Your task to perform on an android device: empty trash in google photos Image 0: 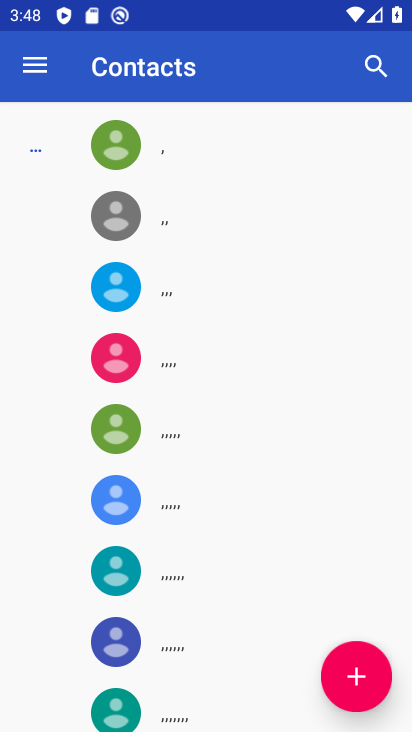
Step 0: press home button
Your task to perform on an android device: empty trash in google photos Image 1: 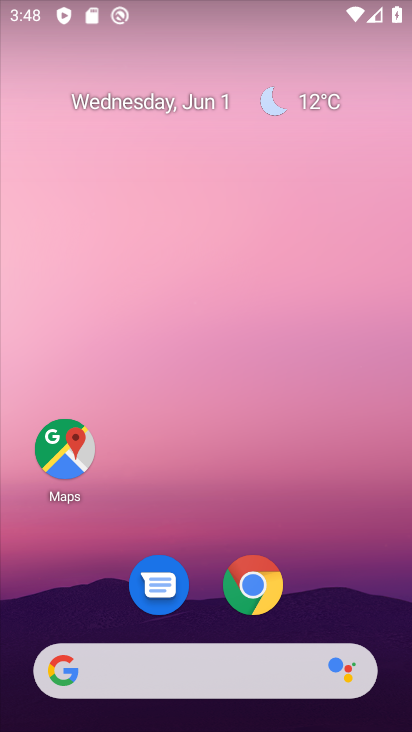
Step 1: drag from (352, 400) to (323, 121)
Your task to perform on an android device: empty trash in google photos Image 2: 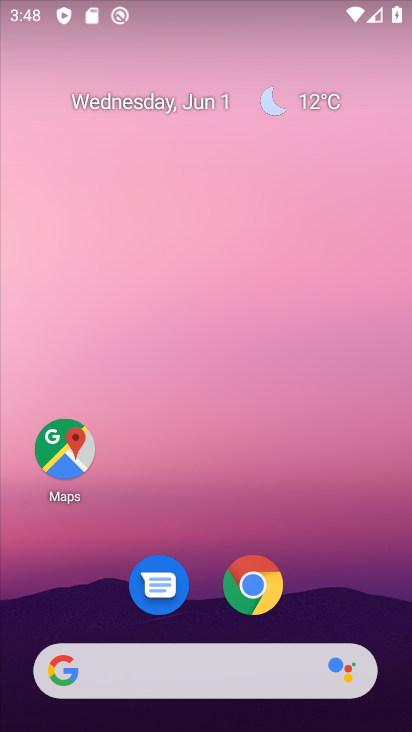
Step 2: drag from (292, 486) to (283, 34)
Your task to perform on an android device: empty trash in google photos Image 3: 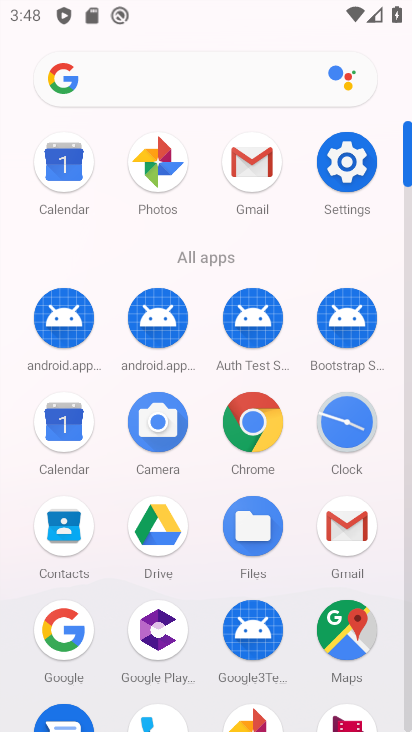
Step 3: click (156, 163)
Your task to perform on an android device: empty trash in google photos Image 4: 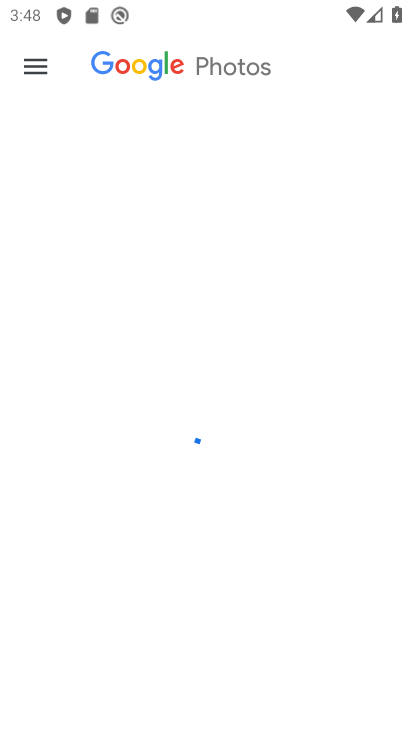
Step 4: click (30, 66)
Your task to perform on an android device: empty trash in google photos Image 5: 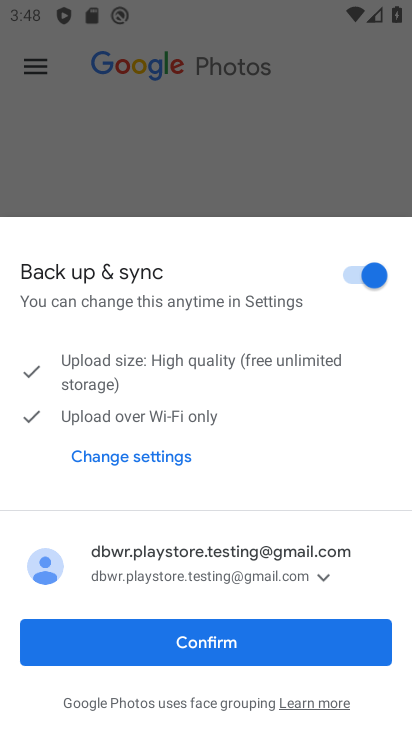
Step 5: click (187, 637)
Your task to perform on an android device: empty trash in google photos Image 6: 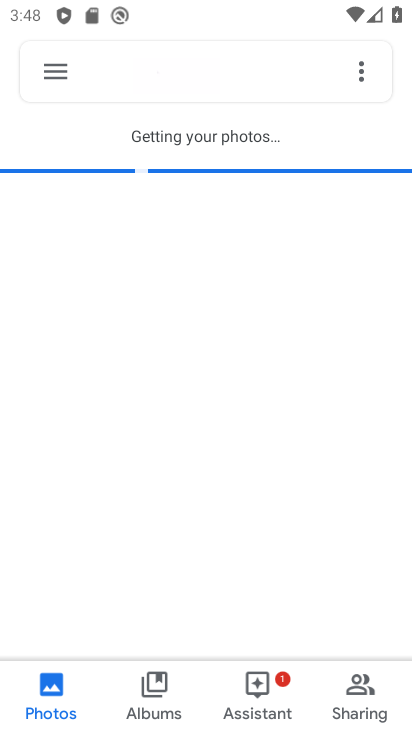
Step 6: click (55, 71)
Your task to perform on an android device: empty trash in google photos Image 7: 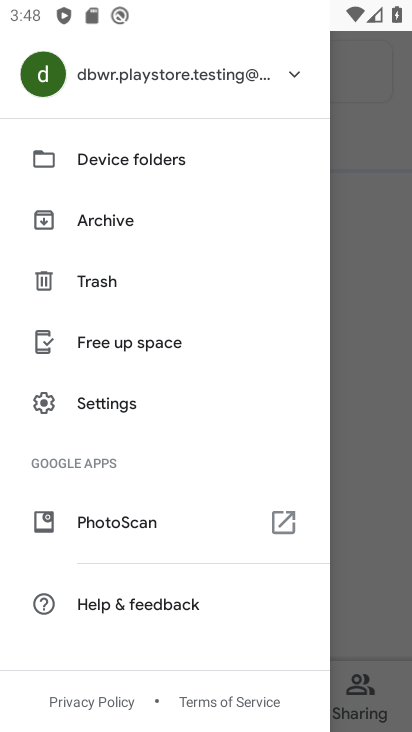
Step 7: click (94, 272)
Your task to perform on an android device: empty trash in google photos Image 8: 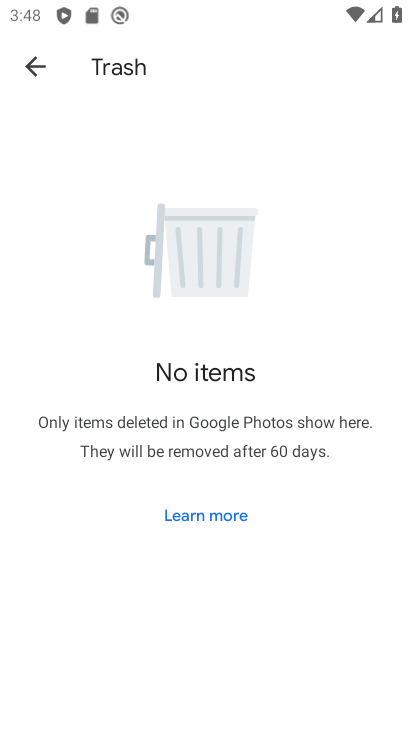
Step 8: task complete